Your task to perform on an android device: Search for vegetarian restaurants on Maps Image 0: 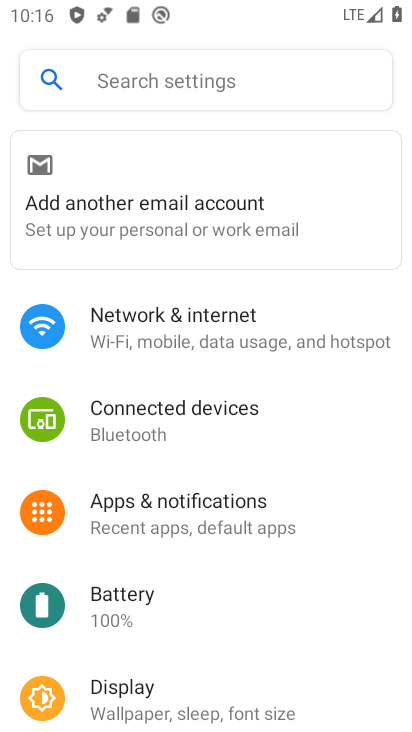
Step 0: press home button
Your task to perform on an android device: Search for vegetarian restaurants on Maps Image 1: 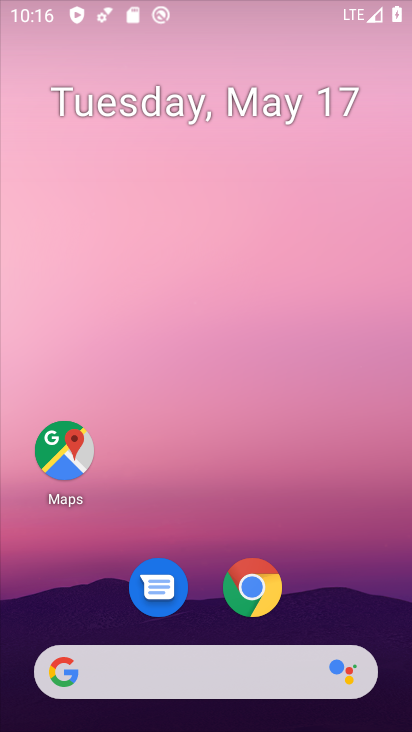
Step 1: drag from (391, 665) to (274, 49)
Your task to perform on an android device: Search for vegetarian restaurants on Maps Image 2: 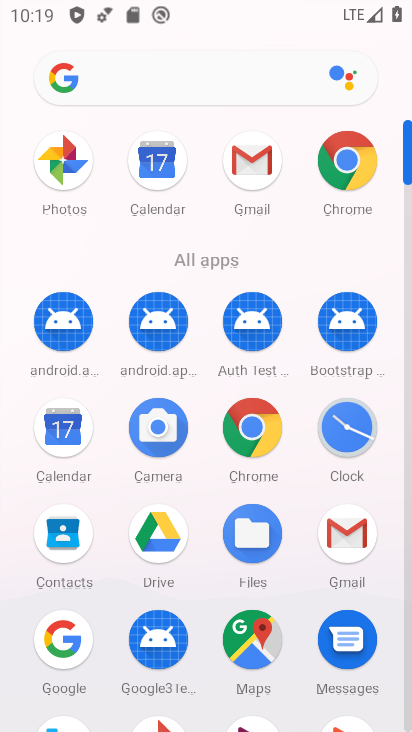
Step 2: click (269, 628)
Your task to perform on an android device: Search for vegetarian restaurants on Maps Image 3: 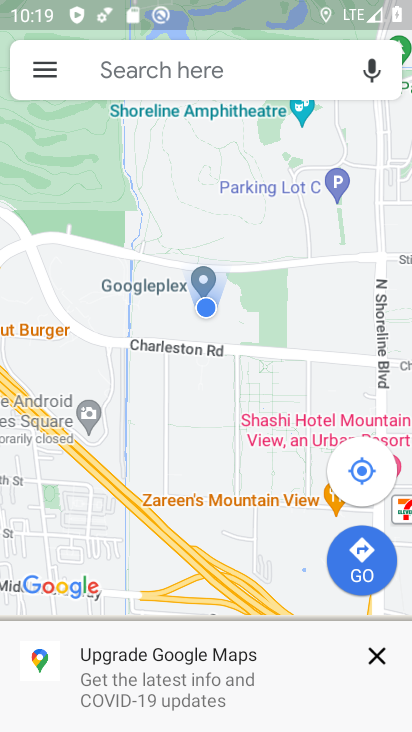
Step 3: click (188, 73)
Your task to perform on an android device: Search for vegetarian restaurants on Maps Image 4: 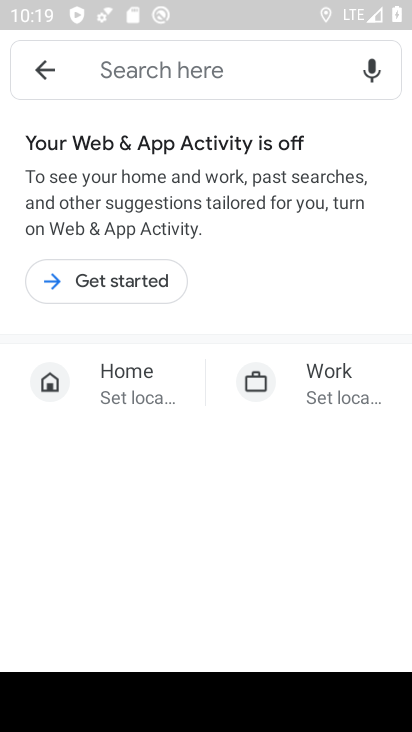
Step 4: click (122, 268)
Your task to perform on an android device: Search for vegetarian restaurants on Maps Image 5: 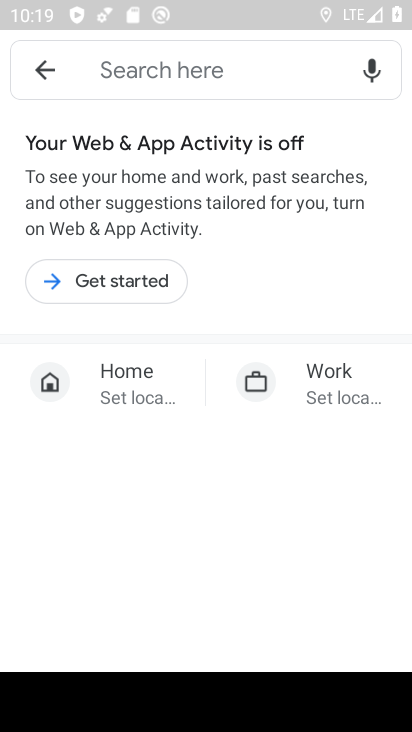
Step 5: click (130, 290)
Your task to perform on an android device: Search for vegetarian restaurants on Maps Image 6: 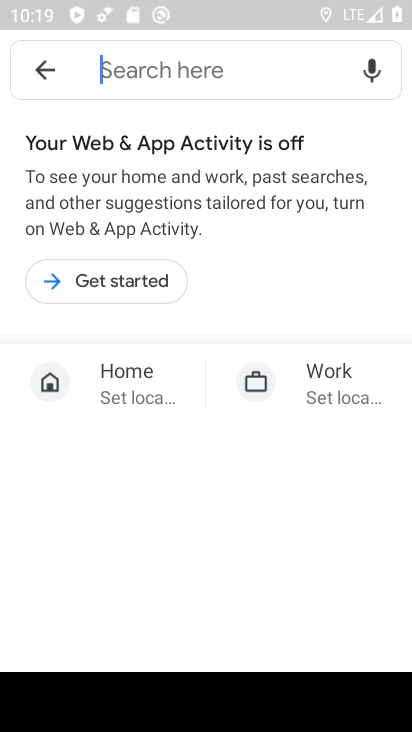
Step 6: click (130, 290)
Your task to perform on an android device: Search for vegetarian restaurants on Maps Image 7: 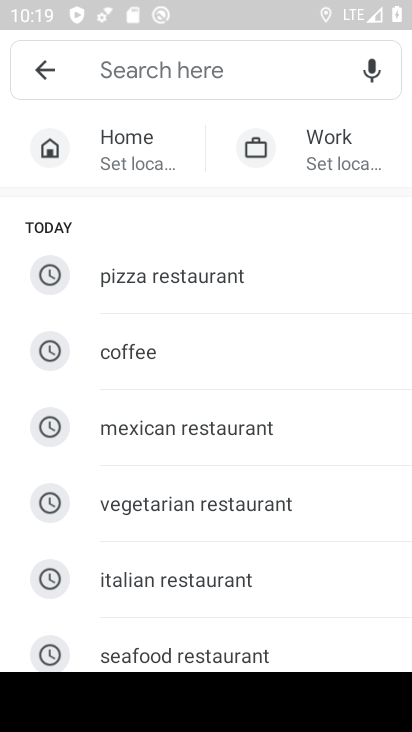
Step 7: click (206, 506)
Your task to perform on an android device: Search for vegetarian restaurants on Maps Image 8: 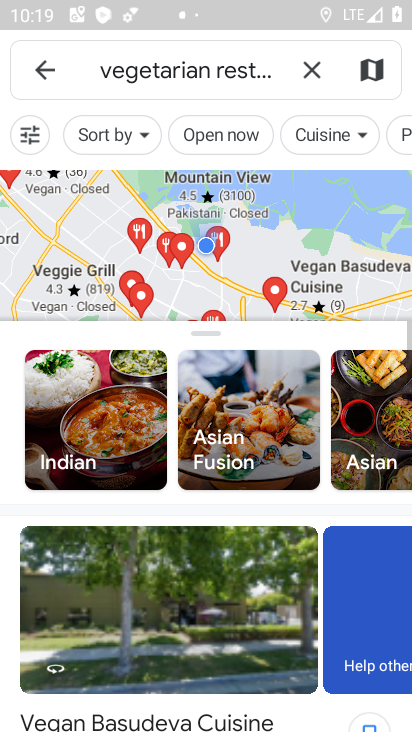
Step 8: task complete